Your task to perform on an android device: What is the recent news? Image 0: 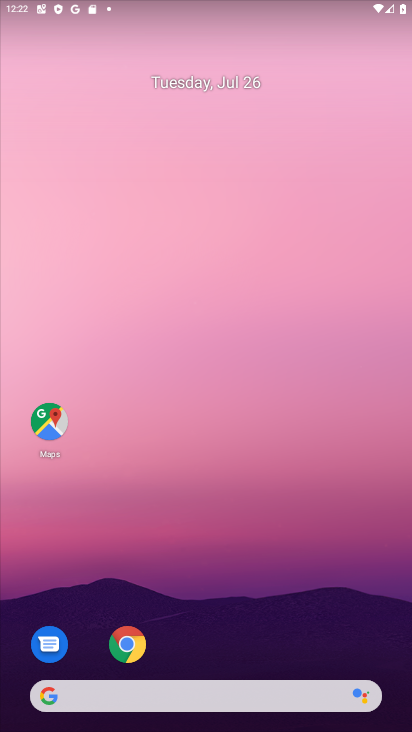
Step 0: click (181, 691)
Your task to perform on an android device: What is the recent news? Image 1: 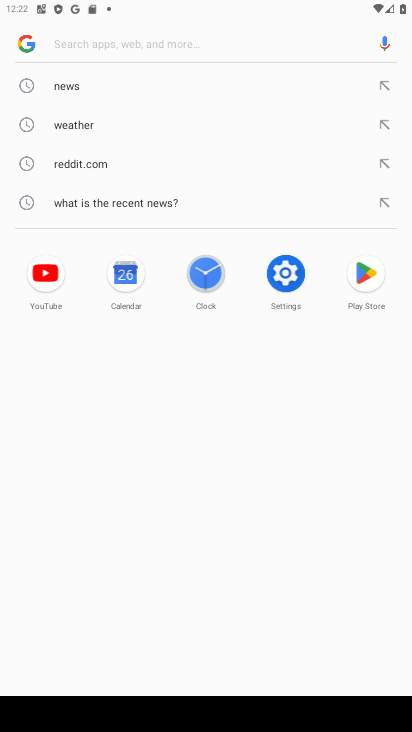
Step 1: type "recent news "
Your task to perform on an android device: What is the recent news? Image 2: 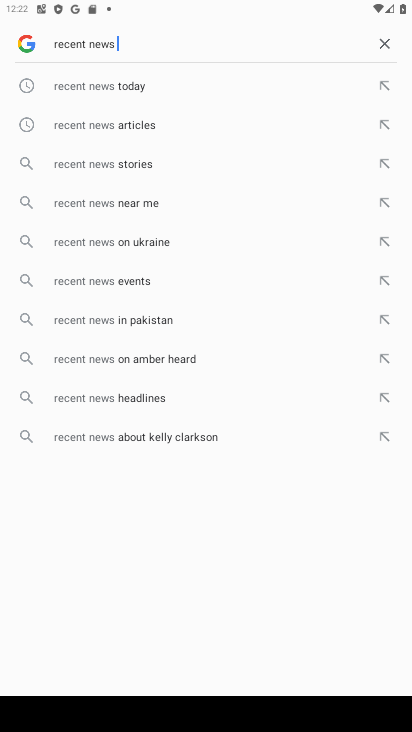
Step 2: click (58, 91)
Your task to perform on an android device: What is the recent news? Image 3: 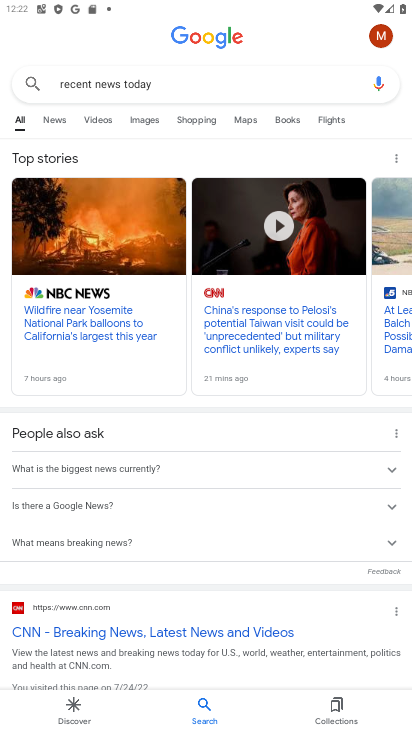
Step 3: click (275, 328)
Your task to perform on an android device: What is the recent news? Image 4: 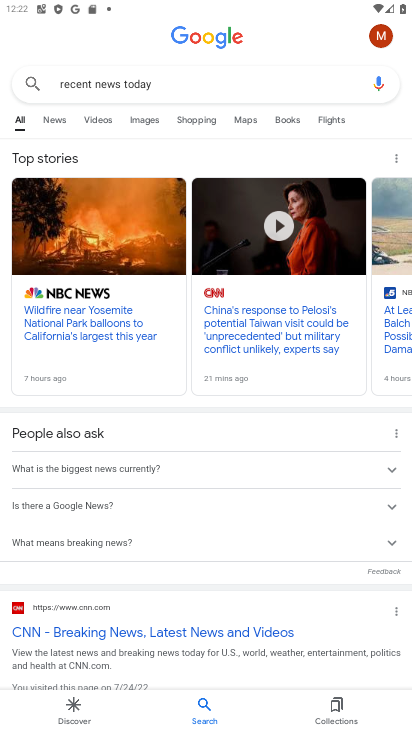
Step 4: drag from (236, 515) to (241, 263)
Your task to perform on an android device: What is the recent news? Image 5: 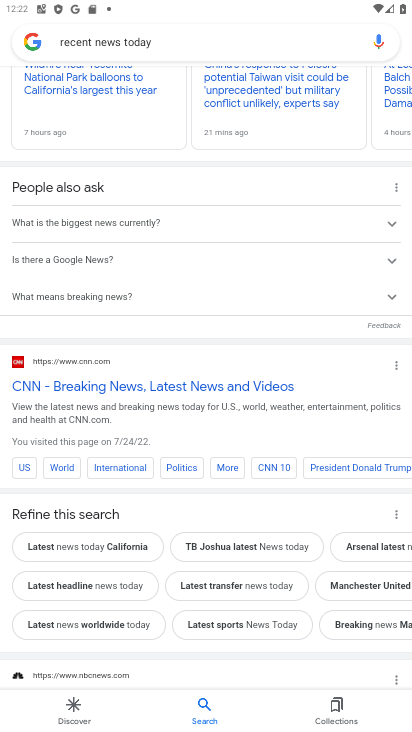
Step 5: click (253, 107)
Your task to perform on an android device: What is the recent news? Image 6: 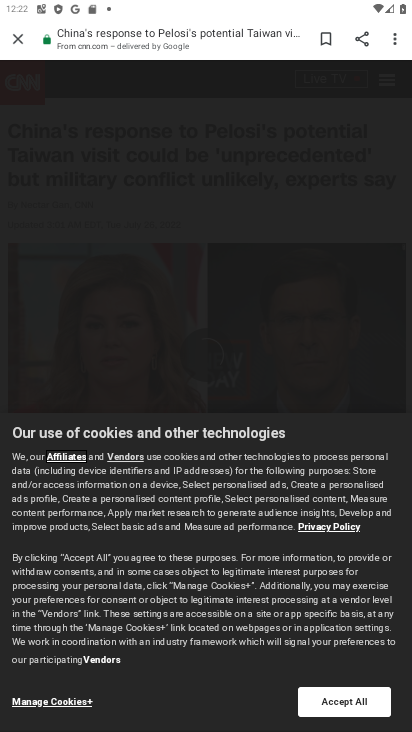
Step 6: task complete